Your task to perform on an android device: search for starred emails in the gmail app Image 0: 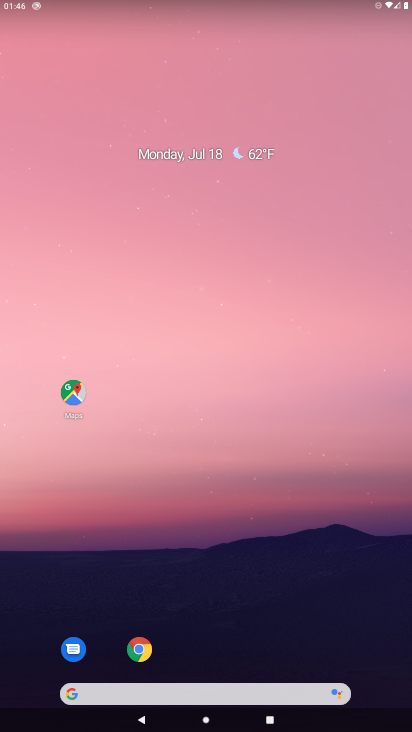
Step 0: drag from (27, 682) to (240, 212)
Your task to perform on an android device: search for starred emails in the gmail app Image 1: 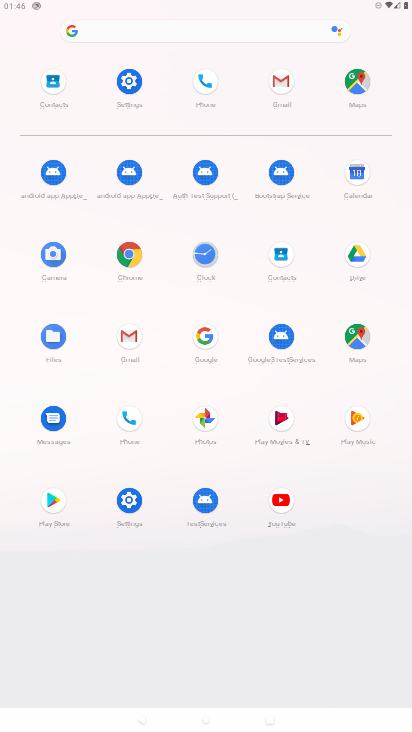
Step 1: click (129, 334)
Your task to perform on an android device: search for starred emails in the gmail app Image 2: 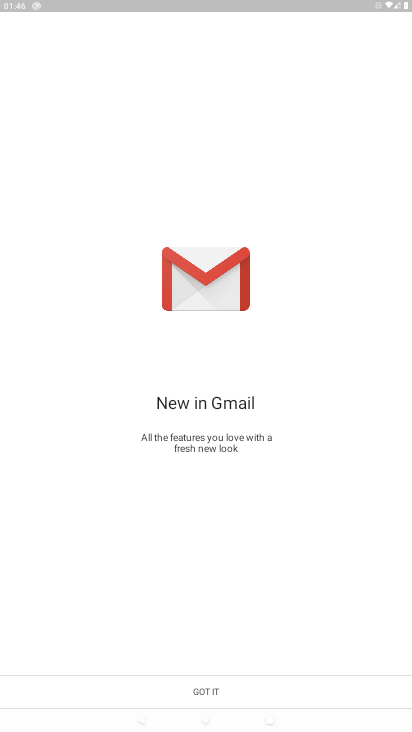
Step 2: click (216, 695)
Your task to perform on an android device: search for starred emails in the gmail app Image 3: 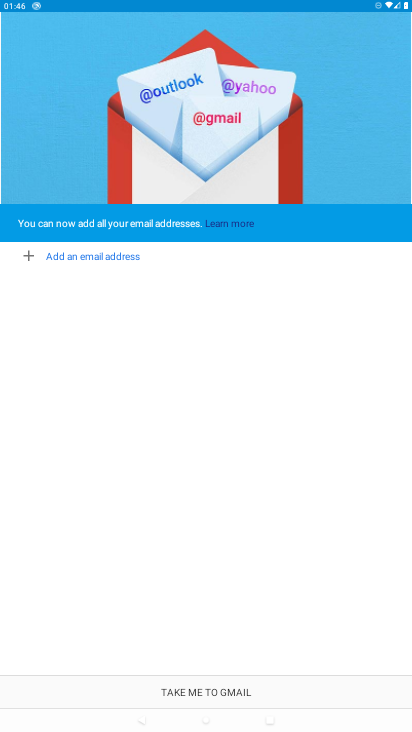
Step 3: click (215, 683)
Your task to perform on an android device: search for starred emails in the gmail app Image 4: 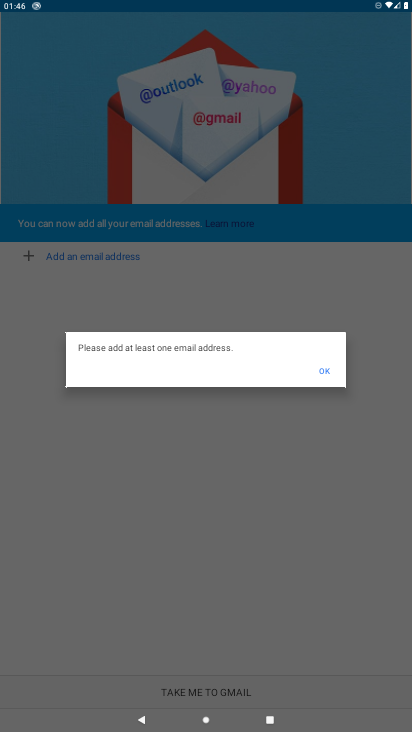
Step 4: click (322, 372)
Your task to perform on an android device: search for starred emails in the gmail app Image 5: 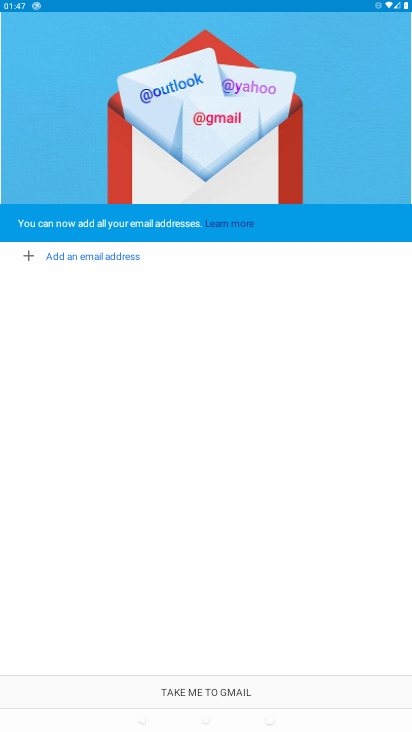
Step 5: click (209, 688)
Your task to perform on an android device: search for starred emails in the gmail app Image 6: 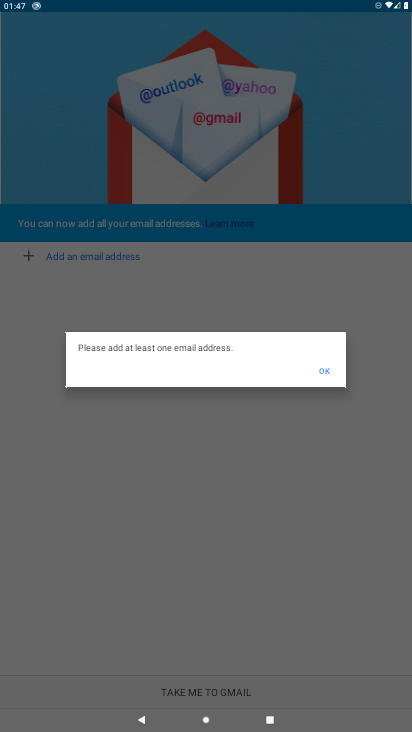
Step 6: click (327, 362)
Your task to perform on an android device: search for starred emails in the gmail app Image 7: 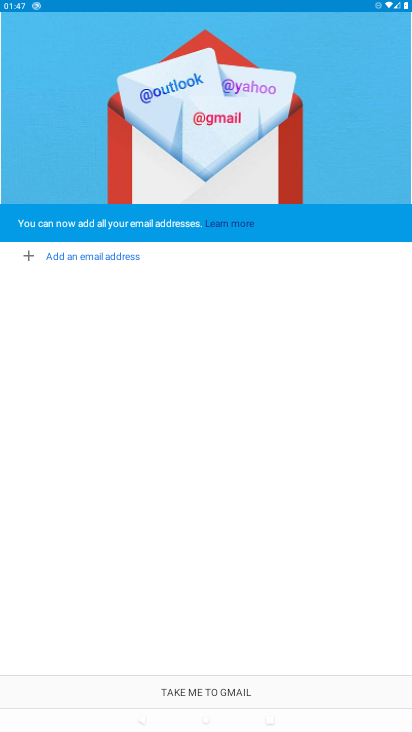
Step 7: task complete